Your task to perform on an android device: search for starred emails in the gmail app Image 0: 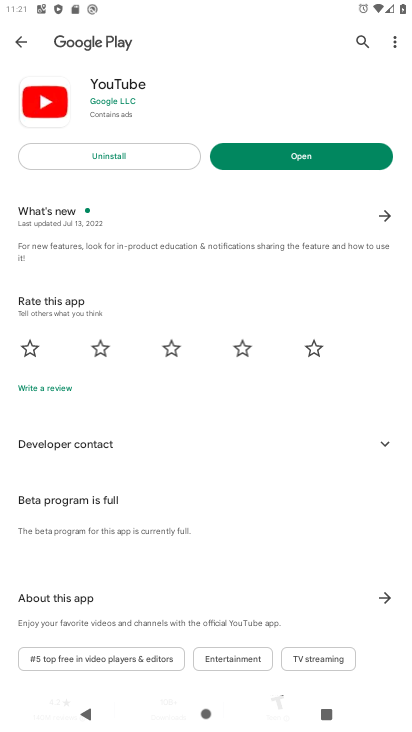
Step 0: press home button
Your task to perform on an android device: search for starred emails in the gmail app Image 1: 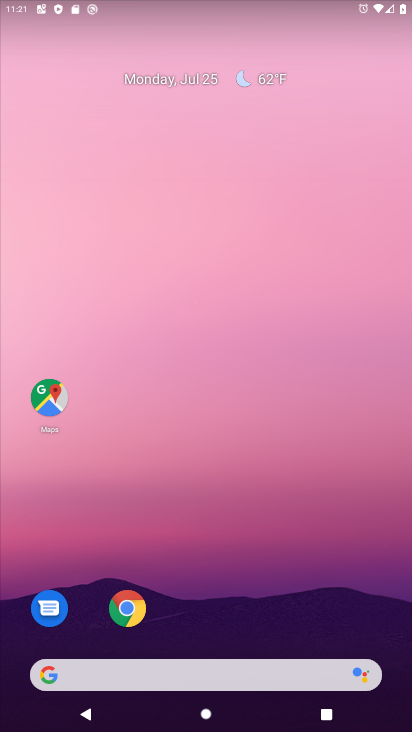
Step 1: drag from (202, 625) to (206, 277)
Your task to perform on an android device: search for starred emails in the gmail app Image 2: 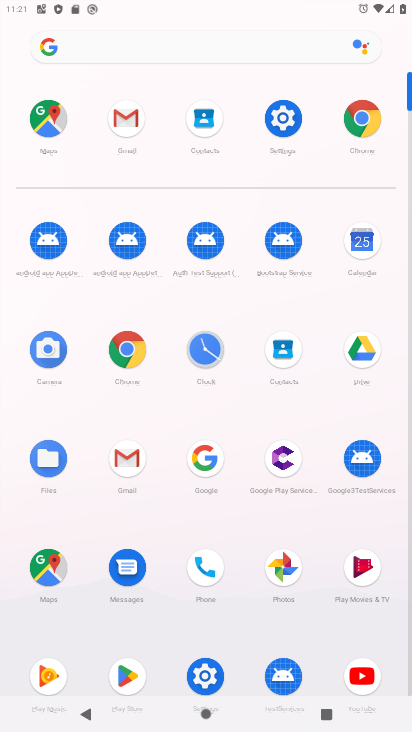
Step 2: click (120, 459)
Your task to perform on an android device: search for starred emails in the gmail app Image 3: 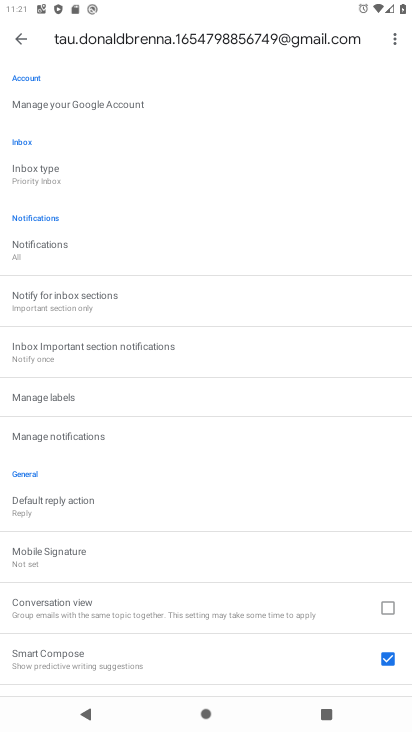
Step 3: click (16, 39)
Your task to perform on an android device: search for starred emails in the gmail app Image 4: 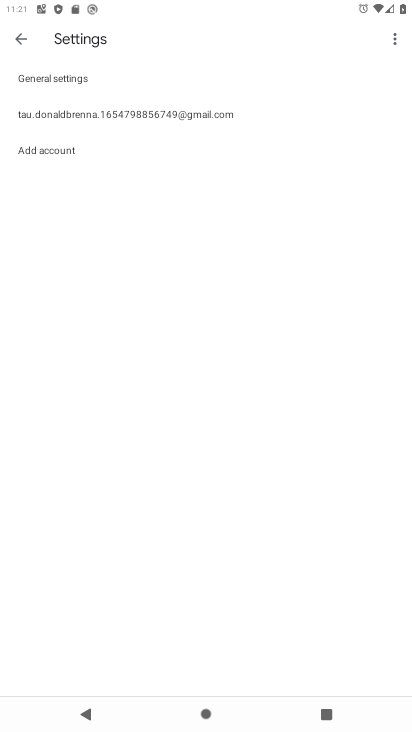
Step 4: click (16, 47)
Your task to perform on an android device: search for starred emails in the gmail app Image 5: 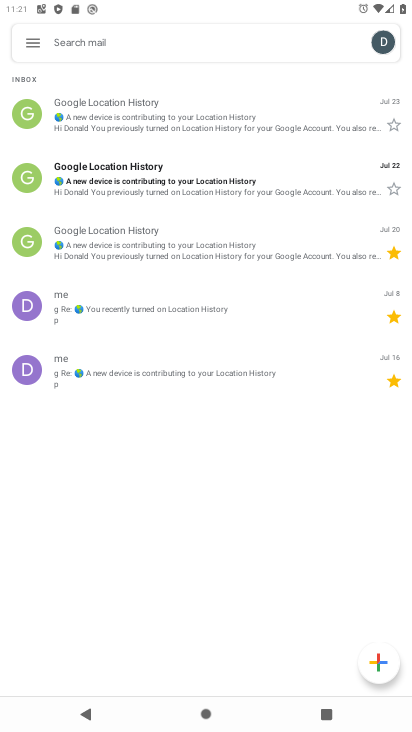
Step 5: click (23, 45)
Your task to perform on an android device: search for starred emails in the gmail app Image 6: 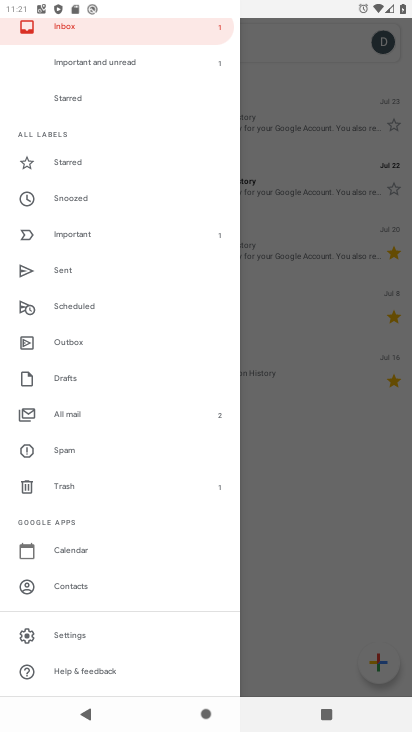
Step 6: click (73, 165)
Your task to perform on an android device: search for starred emails in the gmail app Image 7: 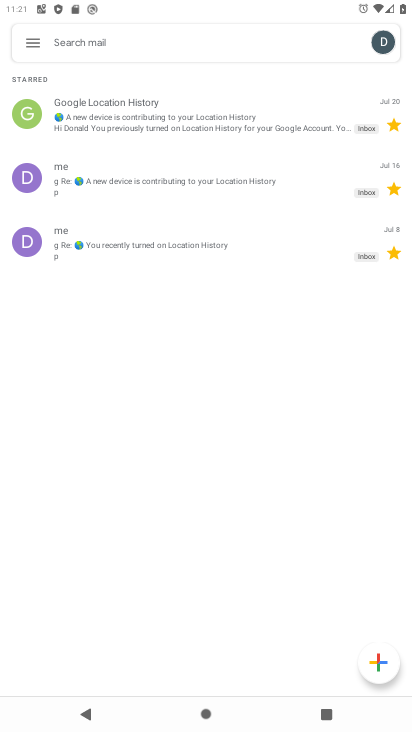
Step 7: task complete